Your task to perform on an android device: turn off data saver in the chrome app Image 0: 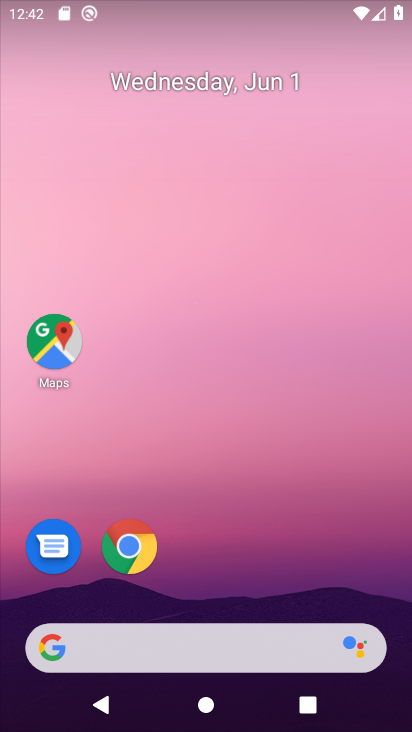
Step 0: click (135, 547)
Your task to perform on an android device: turn off data saver in the chrome app Image 1: 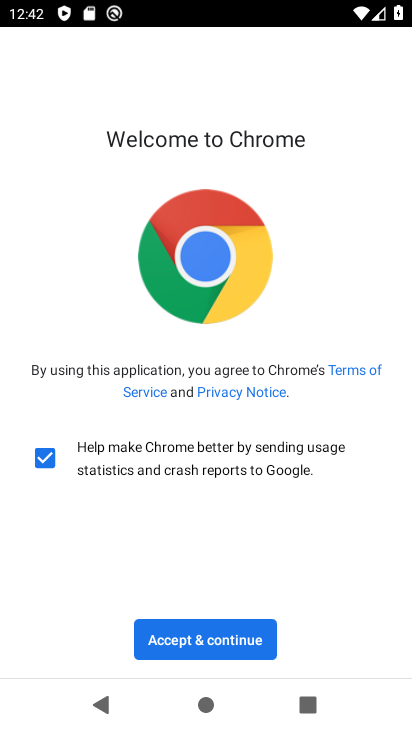
Step 1: click (203, 635)
Your task to perform on an android device: turn off data saver in the chrome app Image 2: 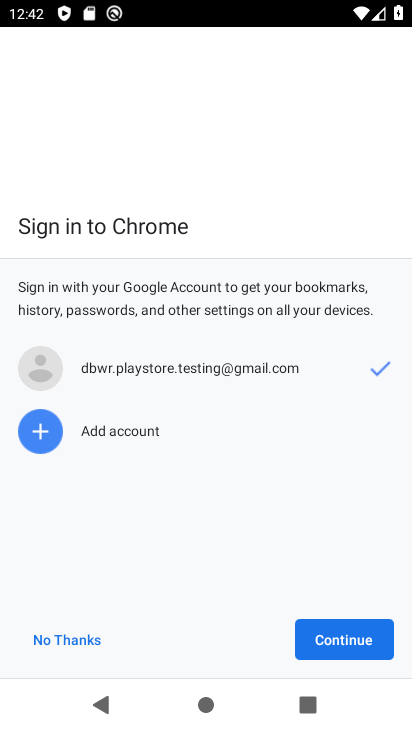
Step 2: click (317, 628)
Your task to perform on an android device: turn off data saver in the chrome app Image 3: 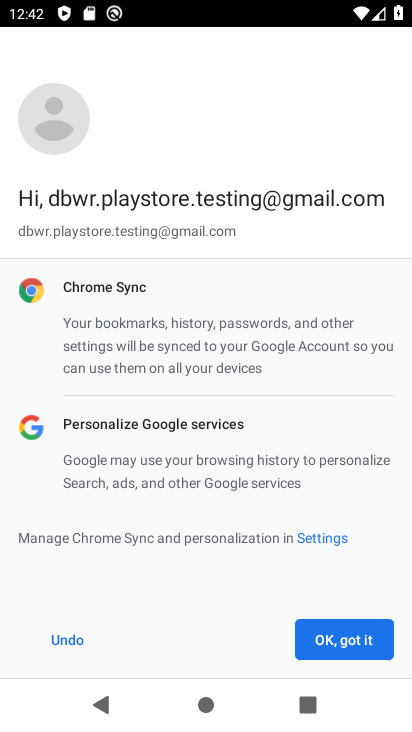
Step 3: click (317, 628)
Your task to perform on an android device: turn off data saver in the chrome app Image 4: 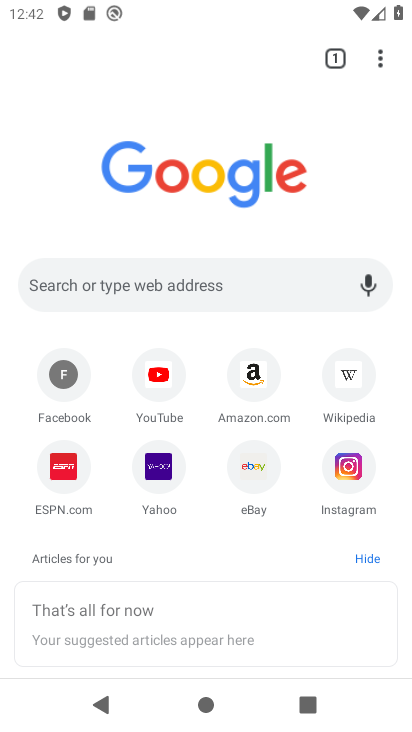
Step 4: click (381, 56)
Your task to perform on an android device: turn off data saver in the chrome app Image 5: 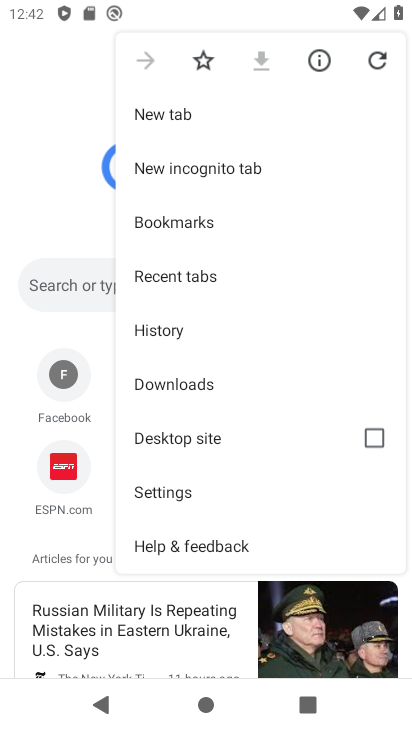
Step 5: click (161, 491)
Your task to perform on an android device: turn off data saver in the chrome app Image 6: 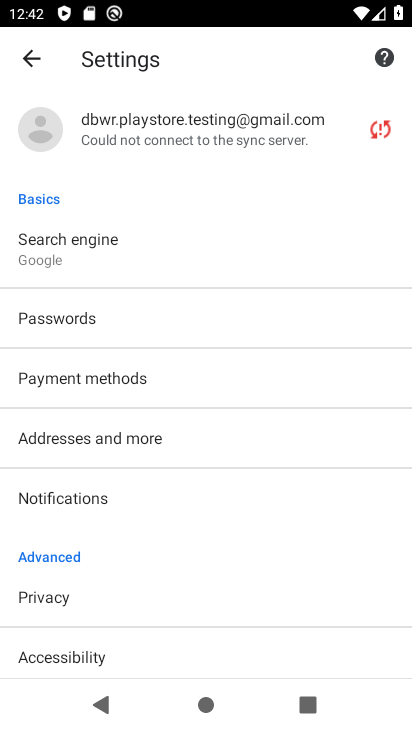
Step 6: drag from (143, 557) to (162, 189)
Your task to perform on an android device: turn off data saver in the chrome app Image 7: 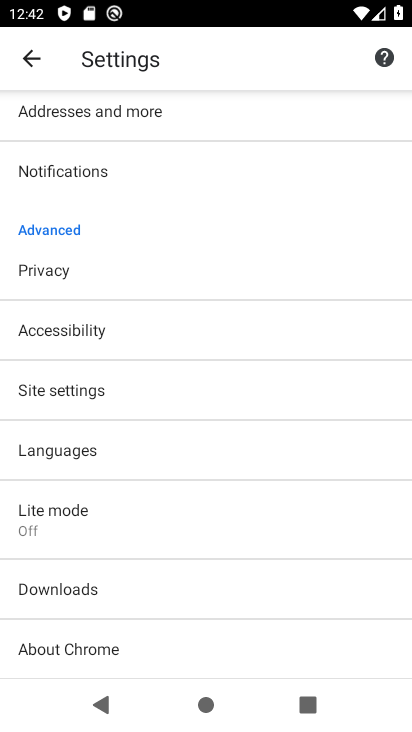
Step 7: click (68, 511)
Your task to perform on an android device: turn off data saver in the chrome app Image 8: 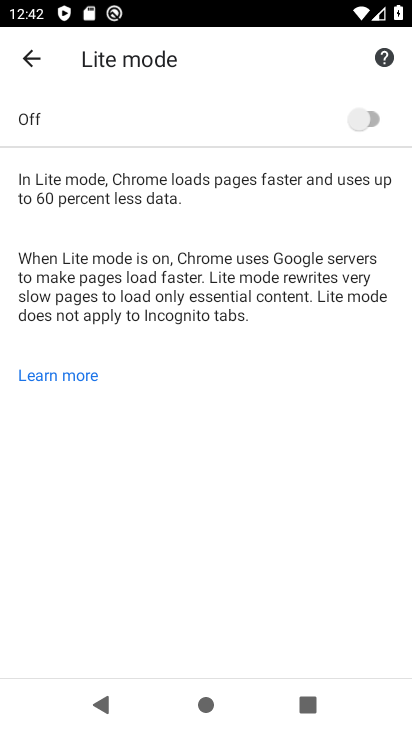
Step 8: task complete